Your task to perform on an android device: empty trash in the gmail app Image 0: 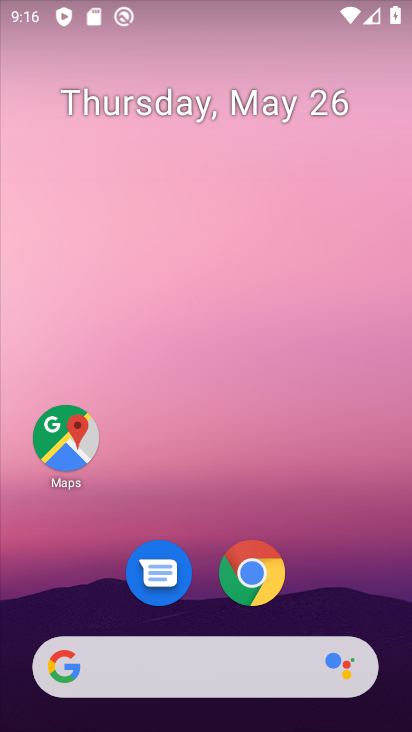
Step 0: drag from (322, 568) to (306, 218)
Your task to perform on an android device: empty trash in the gmail app Image 1: 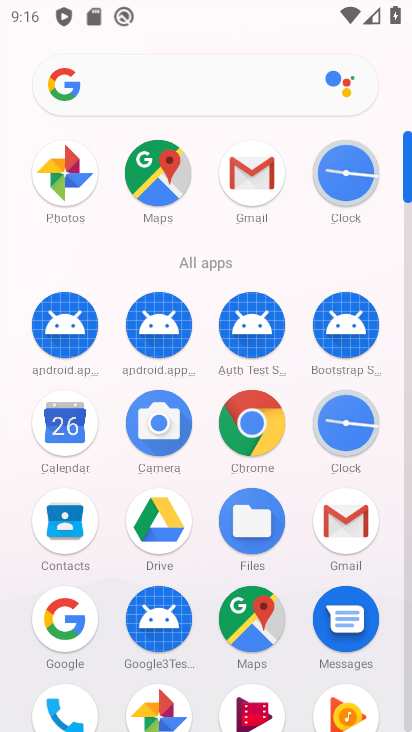
Step 1: click (257, 205)
Your task to perform on an android device: empty trash in the gmail app Image 2: 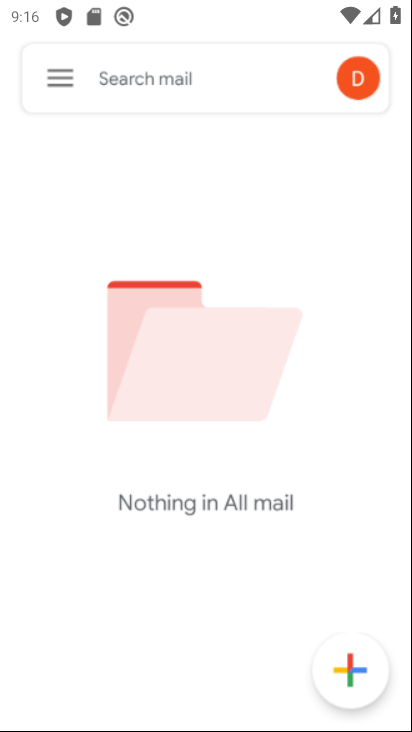
Step 2: click (68, 100)
Your task to perform on an android device: empty trash in the gmail app Image 3: 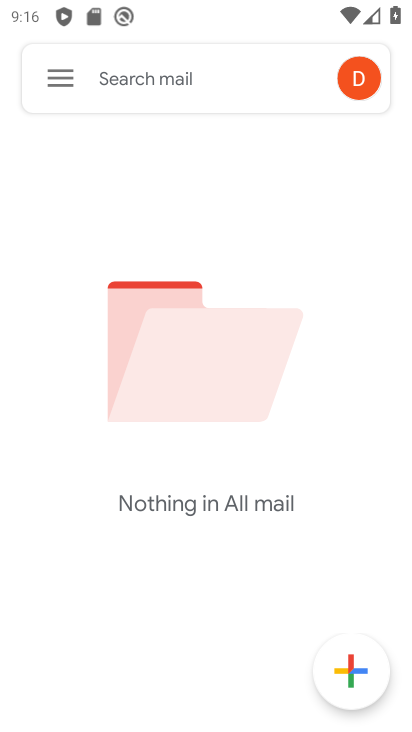
Step 3: click (67, 89)
Your task to perform on an android device: empty trash in the gmail app Image 4: 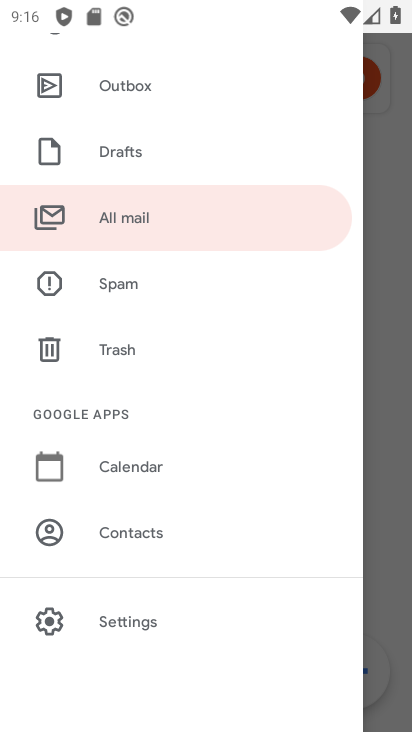
Step 4: drag from (221, 143) to (225, 522)
Your task to perform on an android device: empty trash in the gmail app Image 5: 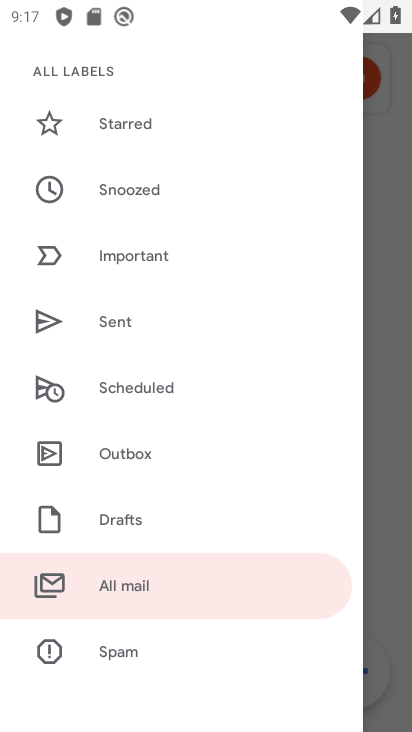
Step 5: drag from (151, 613) to (206, 288)
Your task to perform on an android device: empty trash in the gmail app Image 6: 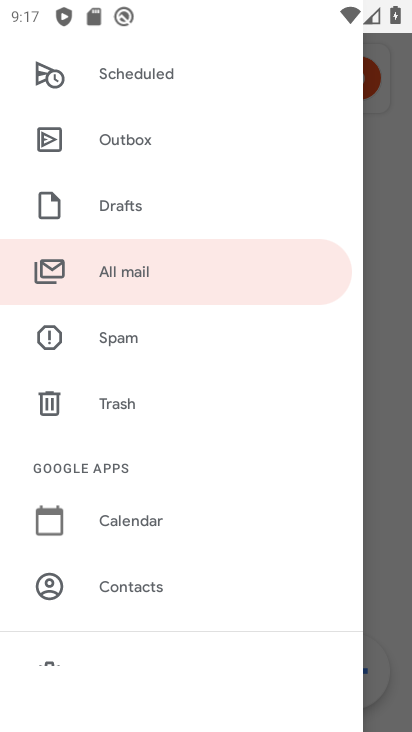
Step 6: click (134, 397)
Your task to perform on an android device: empty trash in the gmail app Image 7: 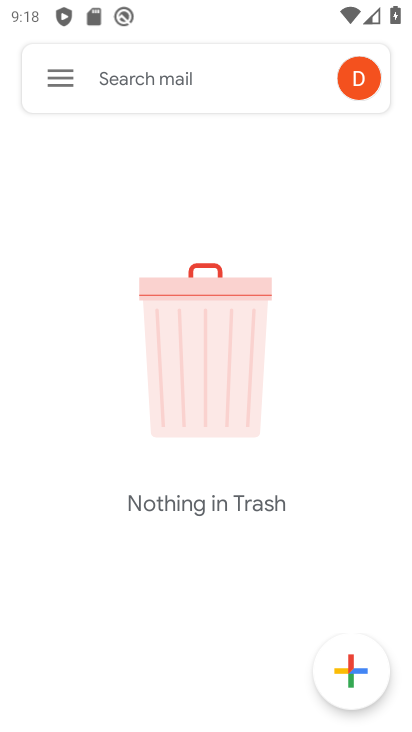
Step 7: task complete